Your task to perform on an android device: toggle javascript in the chrome app Image 0: 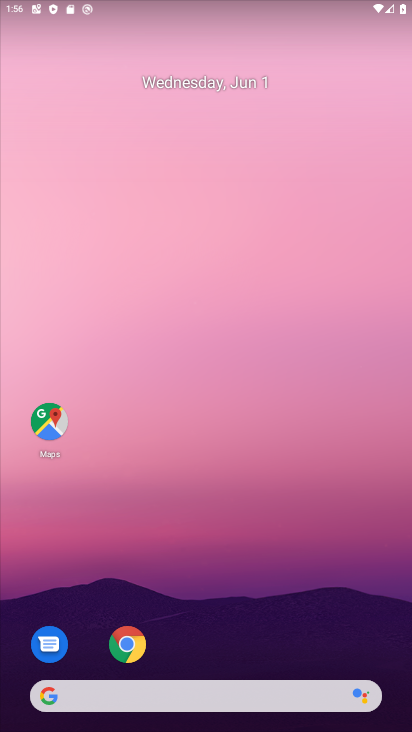
Step 0: click (131, 645)
Your task to perform on an android device: toggle javascript in the chrome app Image 1: 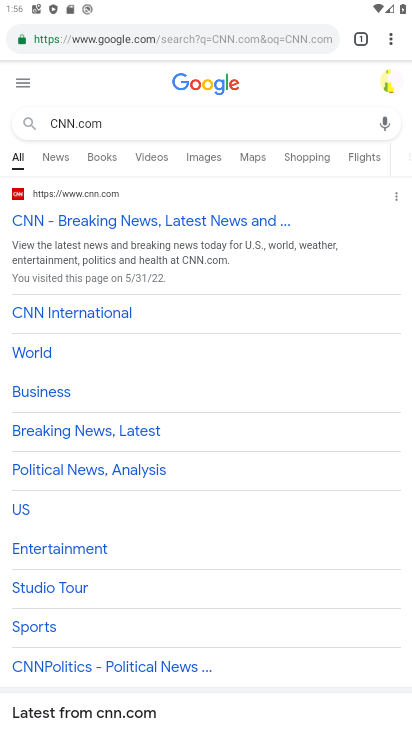
Step 1: click (387, 38)
Your task to perform on an android device: toggle javascript in the chrome app Image 2: 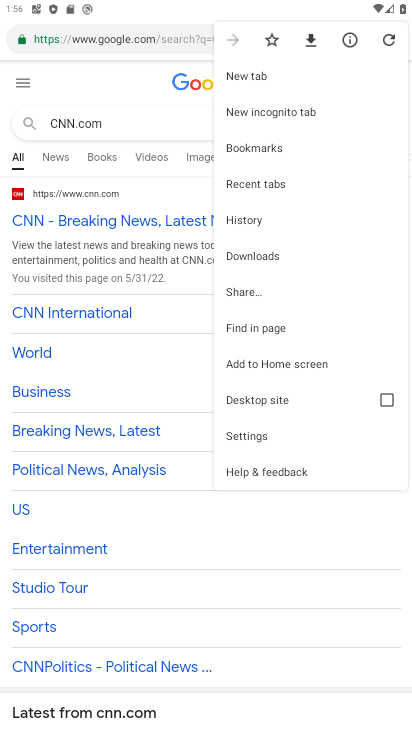
Step 2: click (241, 427)
Your task to perform on an android device: toggle javascript in the chrome app Image 3: 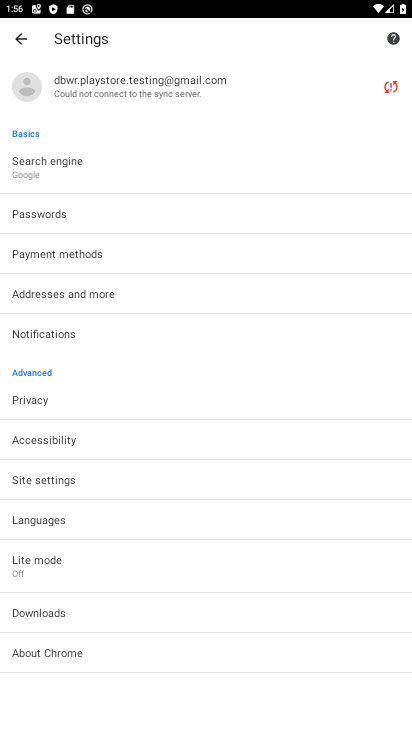
Step 3: click (84, 482)
Your task to perform on an android device: toggle javascript in the chrome app Image 4: 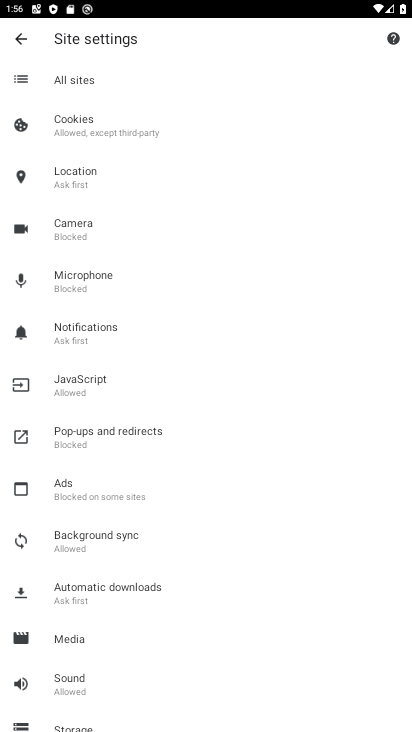
Step 4: click (94, 385)
Your task to perform on an android device: toggle javascript in the chrome app Image 5: 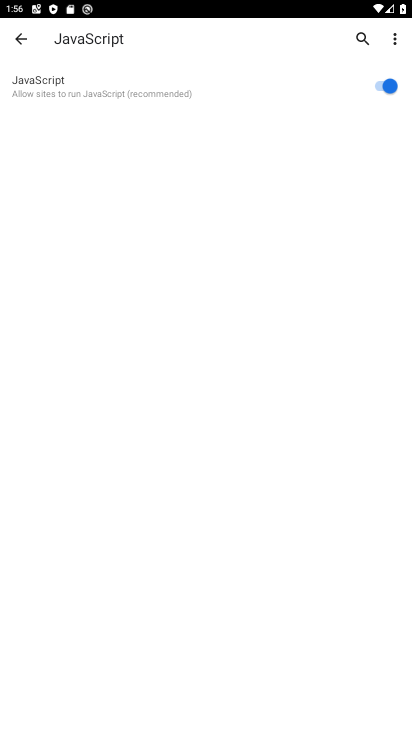
Step 5: click (387, 89)
Your task to perform on an android device: toggle javascript in the chrome app Image 6: 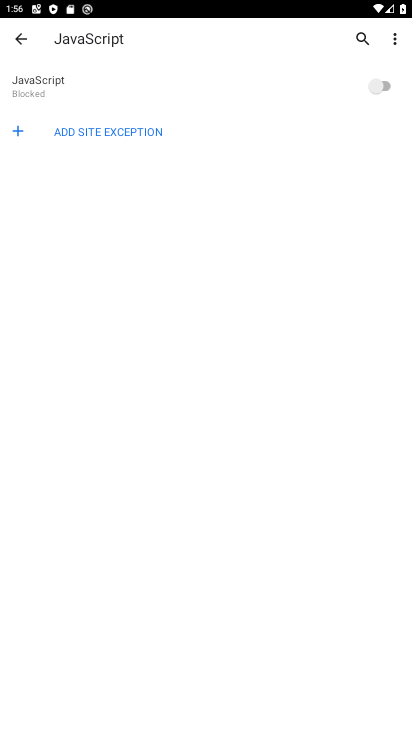
Step 6: task complete